Your task to perform on an android device: turn off improve location accuracy Image 0: 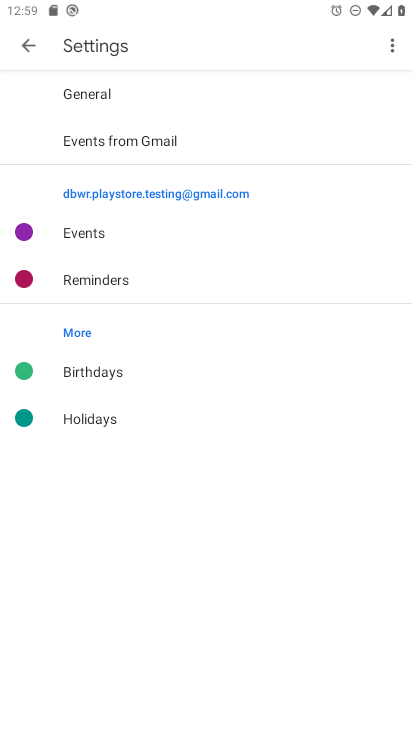
Step 0: press home button
Your task to perform on an android device: turn off improve location accuracy Image 1: 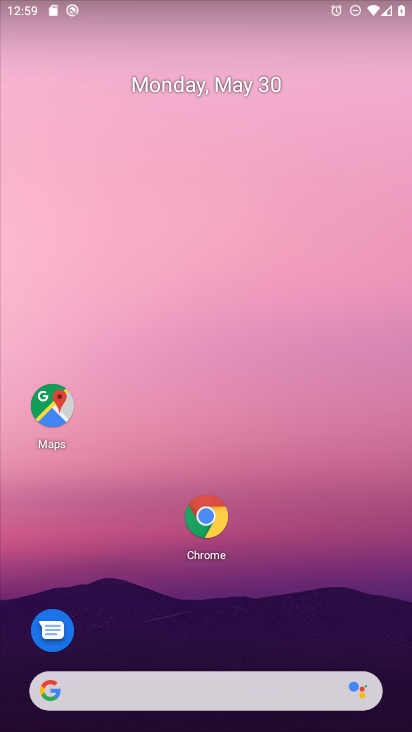
Step 1: drag from (205, 691) to (360, 13)
Your task to perform on an android device: turn off improve location accuracy Image 2: 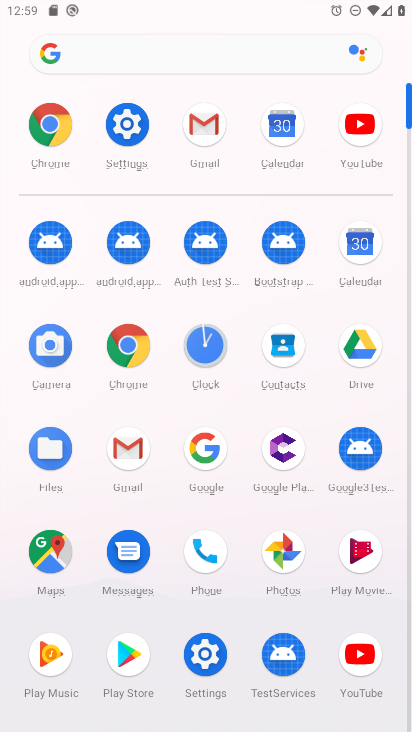
Step 2: click (129, 123)
Your task to perform on an android device: turn off improve location accuracy Image 3: 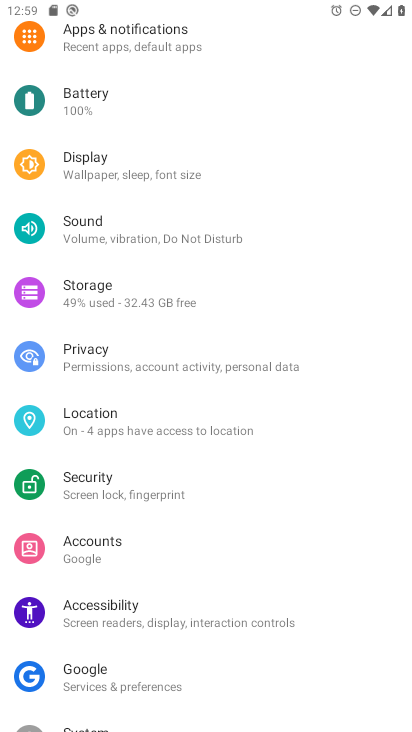
Step 3: click (112, 416)
Your task to perform on an android device: turn off improve location accuracy Image 4: 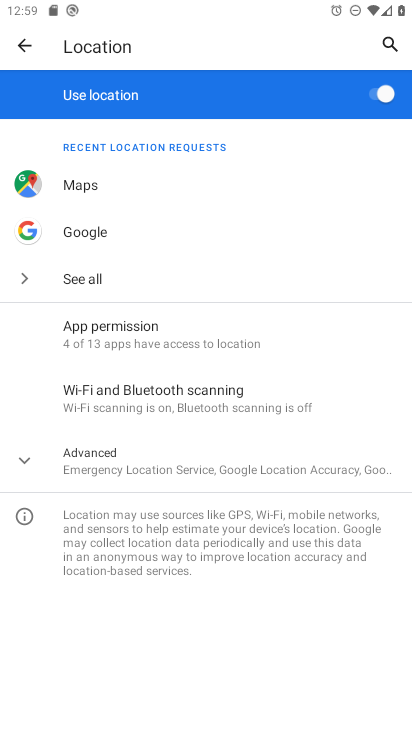
Step 4: click (142, 467)
Your task to perform on an android device: turn off improve location accuracy Image 5: 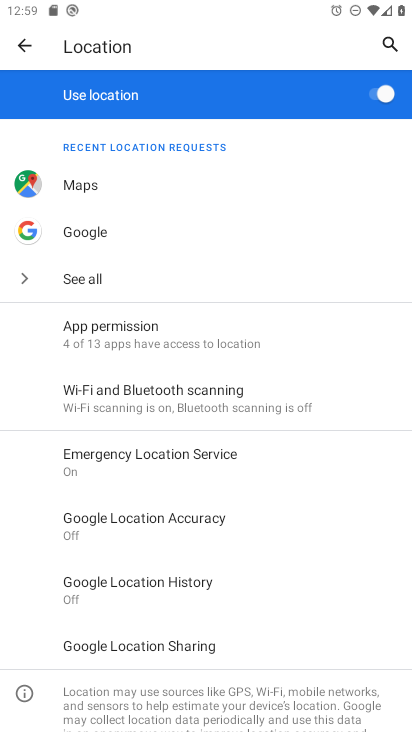
Step 5: click (123, 524)
Your task to perform on an android device: turn off improve location accuracy Image 6: 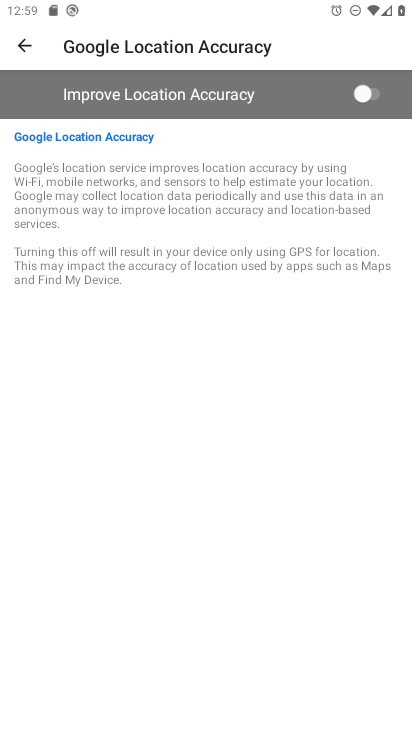
Step 6: task complete